Your task to perform on an android device: remove spam from my inbox in the gmail app Image 0: 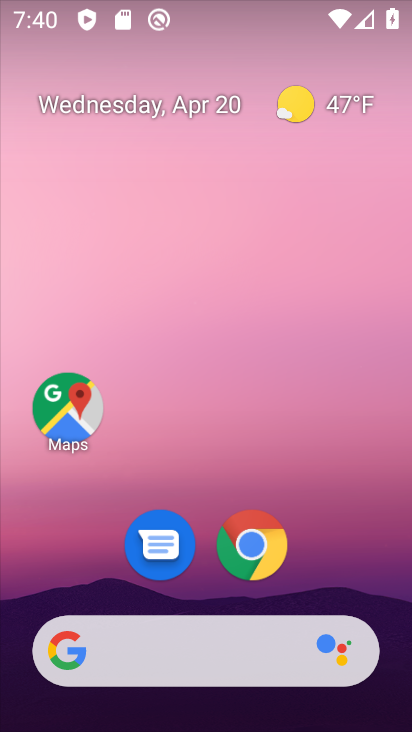
Step 0: drag from (340, 577) to (360, 187)
Your task to perform on an android device: remove spam from my inbox in the gmail app Image 1: 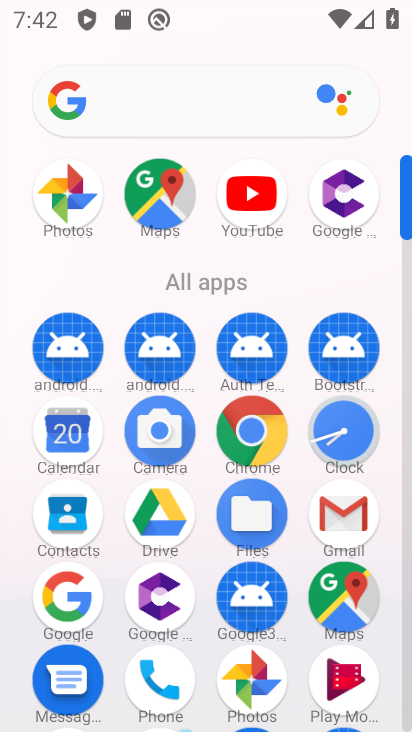
Step 1: click (349, 500)
Your task to perform on an android device: remove spam from my inbox in the gmail app Image 2: 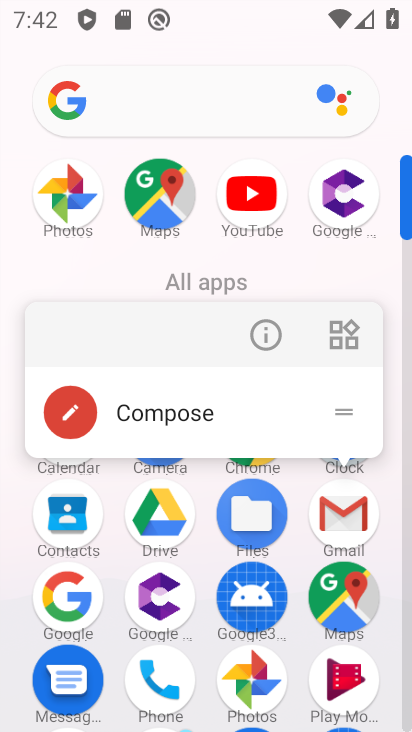
Step 2: click (348, 499)
Your task to perform on an android device: remove spam from my inbox in the gmail app Image 3: 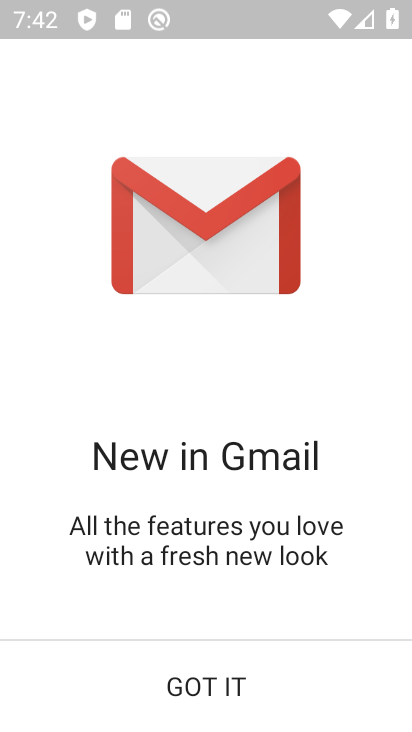
Step 3: click (251, 668)
Your task to perform on an android device: remove spam from my inbox in the gmail app Image 4: 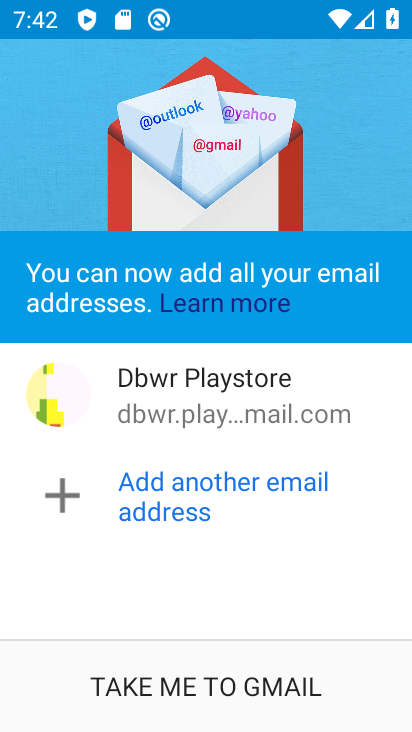
Step 4: click (251, 668)
Your task to perform on an android device: remove spam from my inbox in the gmail app Image 5: 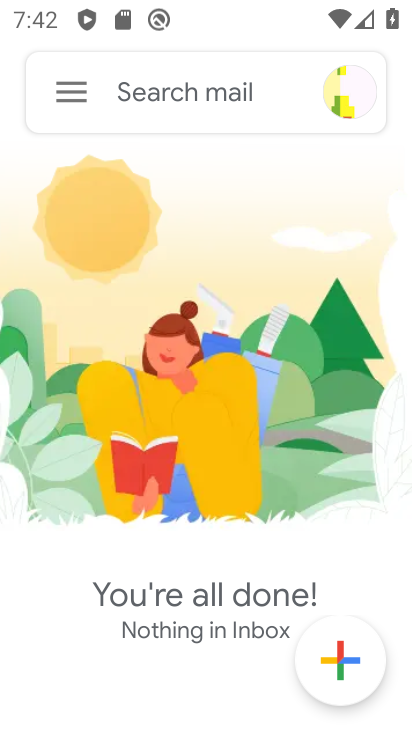
Step 5: task complete